Your task to perform on an android device: Open Google Chrome and open the bookmarks view Image 0: 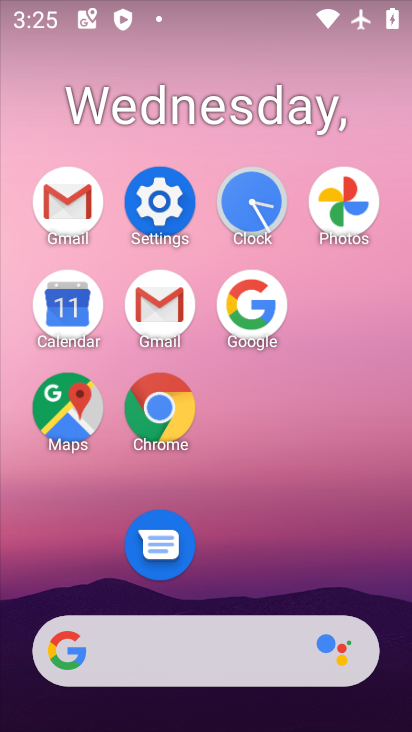
Step 0: click (171, 401)
Your task to perform on an android device: Open Google Chrome and open the bookmarks view Image 1: 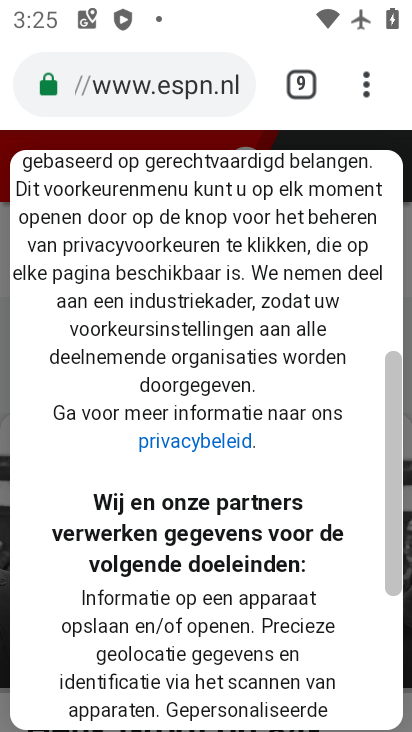
Step 1: click (365, 83)
Your task to perform on an android device: Open Google Chrome and open the bookmarks view Image 2: 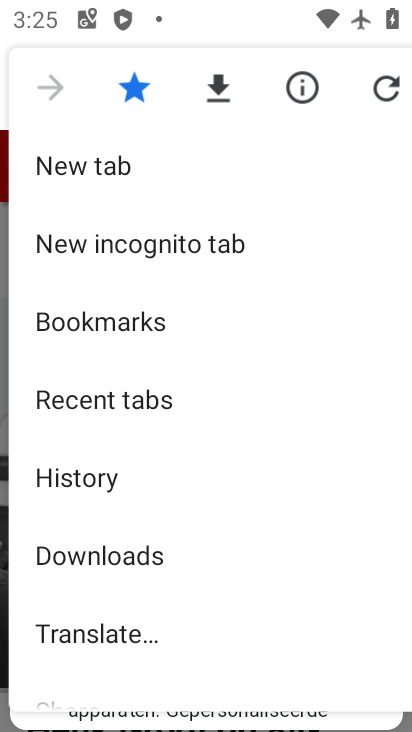
Step 2: click (159, 319)
Your task to perform on an android device: Open Google Chrome and open the bookmarks view Image 3: 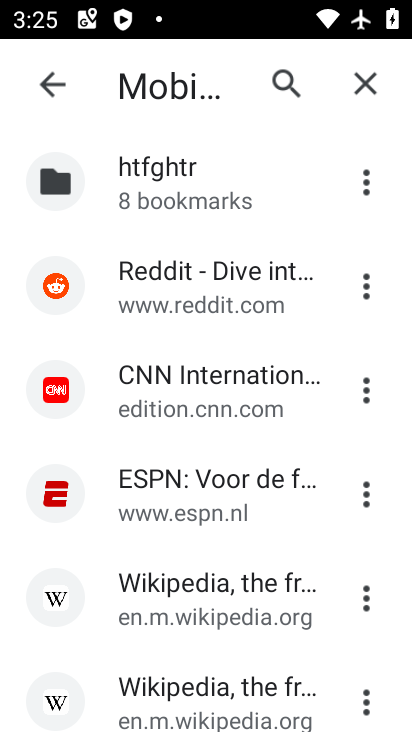
Step 3: task complete